Your task to perform on an android device: change keyboard looks Image 0: 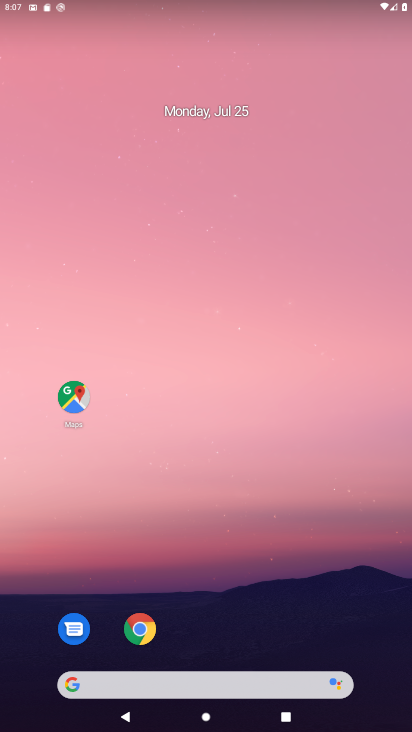
Step 0: drag from (199, 688) to (229, 93)
Your task to perform on an android device: change keyboard looks Image 1: 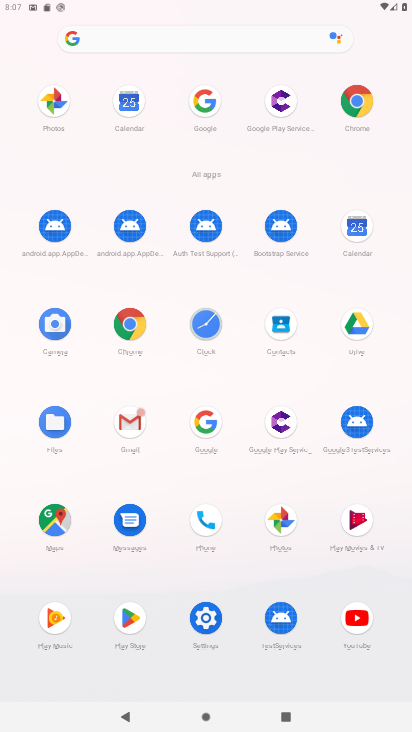
Step 1: click (207, 619)
Your task to perform on an android device: change keyboard looks Image 2: 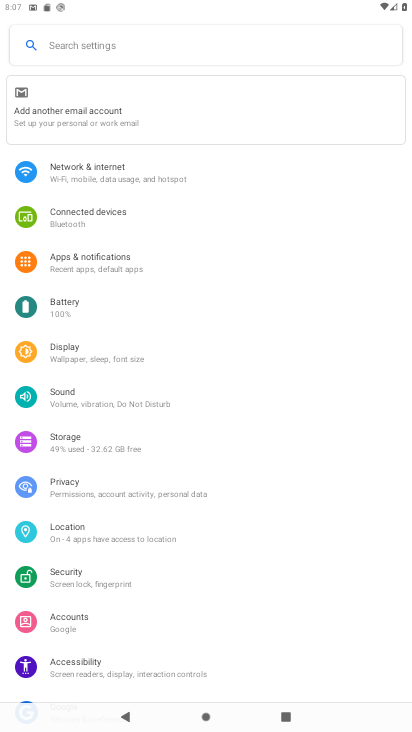
Step 2: drag from (83, 419) to (127, 339)
Your task to perform on an android device: change keyboard looks Image 3: 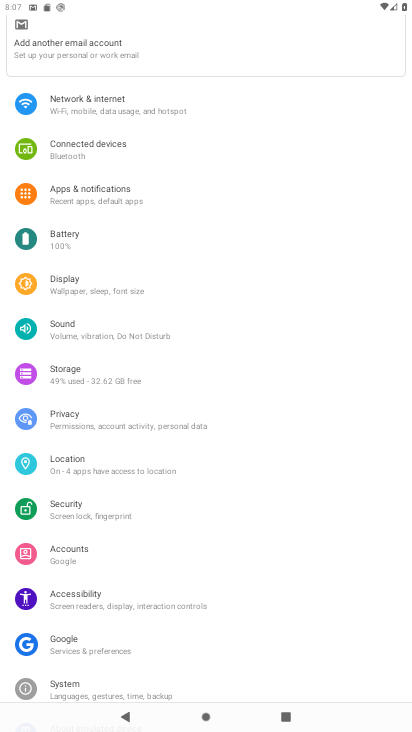
Step 3: drag from (92, 456) to (145, 377)
Your task to perform on an android device: change keyboard looks Image 4: 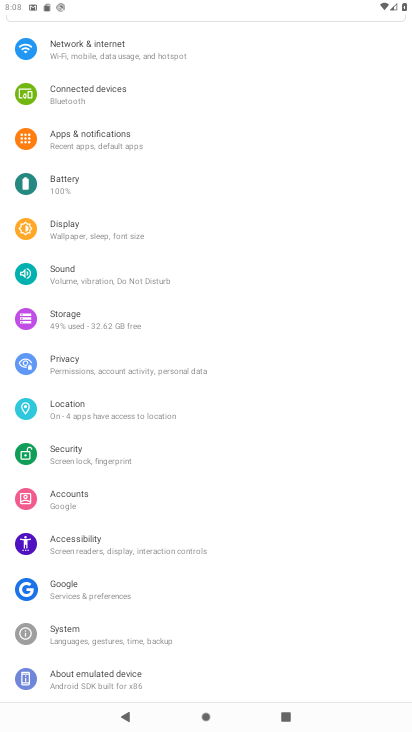
Step 4: click (80, 633)
Your task to perform on an android device: change keyboard looks Image 5: 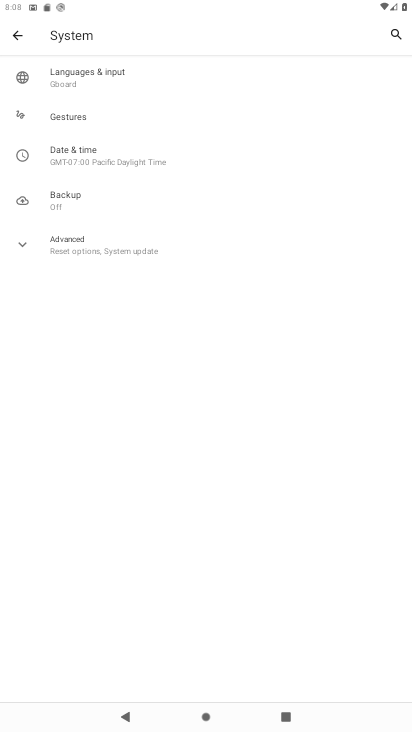
Step 5: click (109, 78)
Your task to perform on an android device: change keyboard looks Image 6: 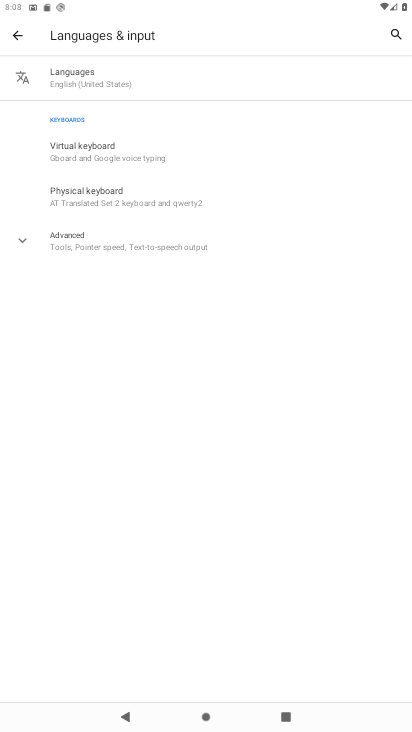
Step 6: click (88, 155)
Your task to perform on an android device: change keyboard looks Image 7: 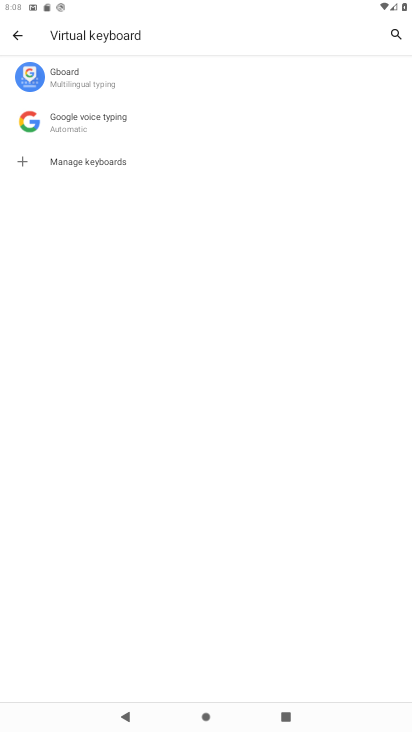
Step 7: click (105, 78)
Your task to perform on an android device: change keyboard looks Image 8: 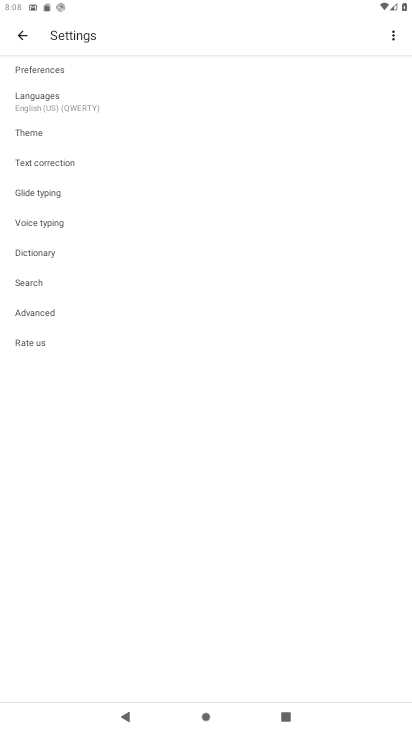
Step 8: click (44, 136)
Your task to perform on an android device: change keyboard looks Image 9: 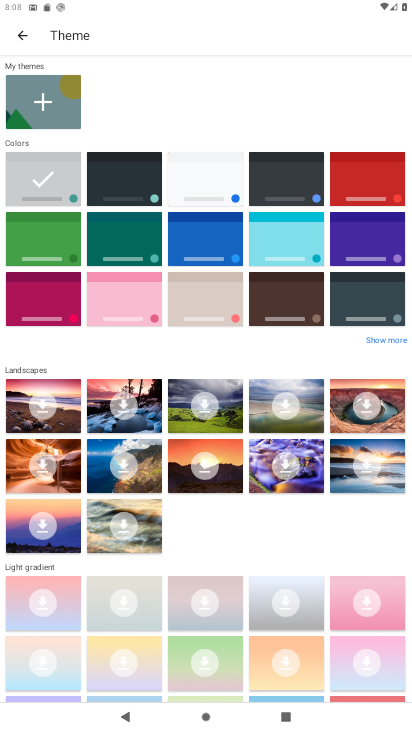
Step 9: click (131, 226)
Your task to perform on an android device: change keyboard looks Image 10: 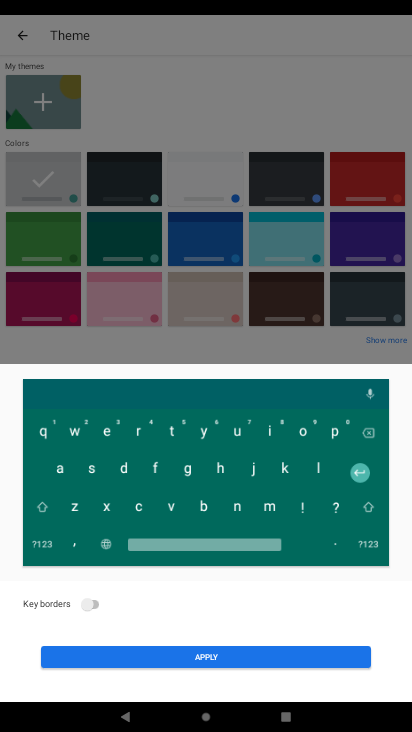
Step 10: click (88, 604)
Your task to perform on an android device: change keyboard looks Image 11: 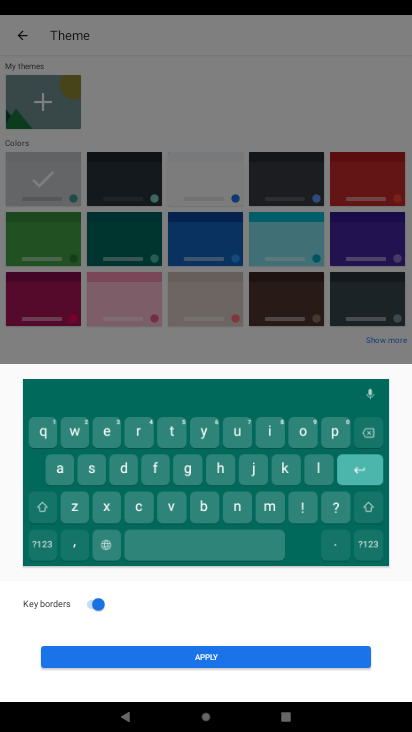
Step 11: click (212, 659)
Your task to perform on an android device: change keyboard looks Image 12: 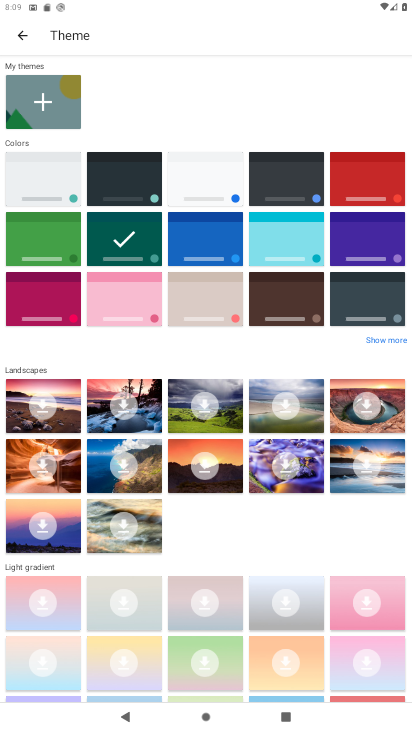
Step 12: task complete